Your task to perform on an android device: Go to sound settings Image 0: 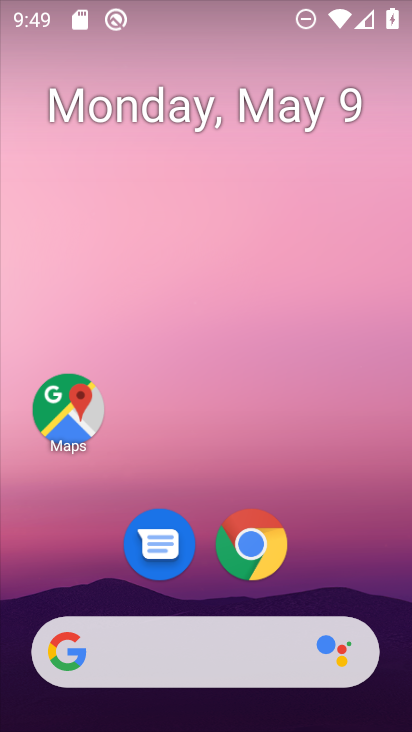
Step 0: drag from (335, 531) to (235, 96)
Your task to perform on an android device: Go to sound settings Image 1: 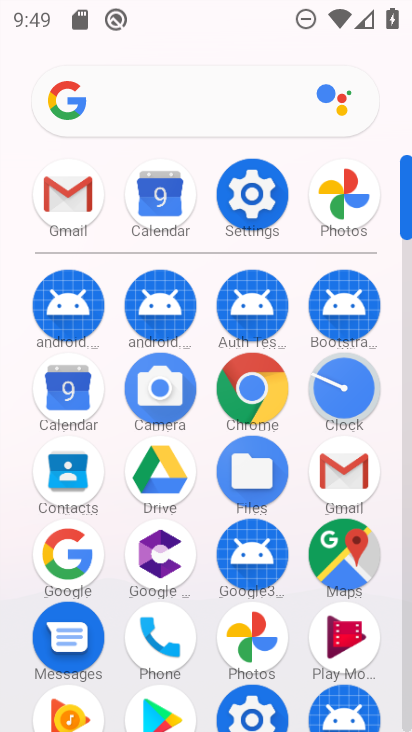
Step 1: click (251, 198)
Your task to perform on an android device: Go to sound settings Image 2: 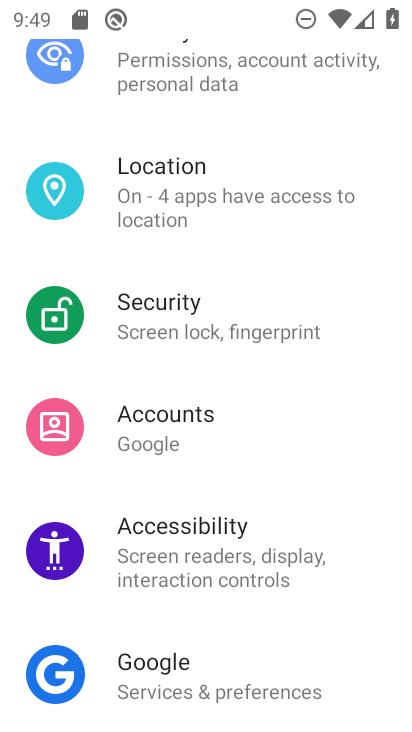
Step 2: drag from (237, 452) to (214, 224)
Your task to perform on an android device: Go to sound settings Image 3: 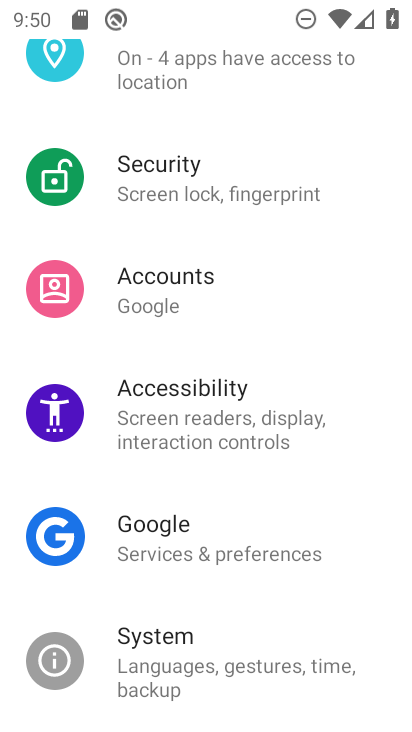
Step 3: drag from (239, 241) to (226, 714)
Your task to perform on an android device: Go to sound settings Image 4: 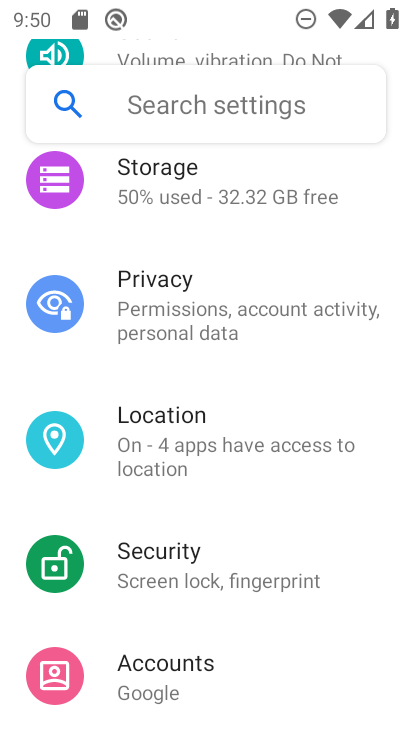
Step 4: drag from (187, 231) to (179, 664)
Your task to perform on an android device: Go to sound settings Image 5: 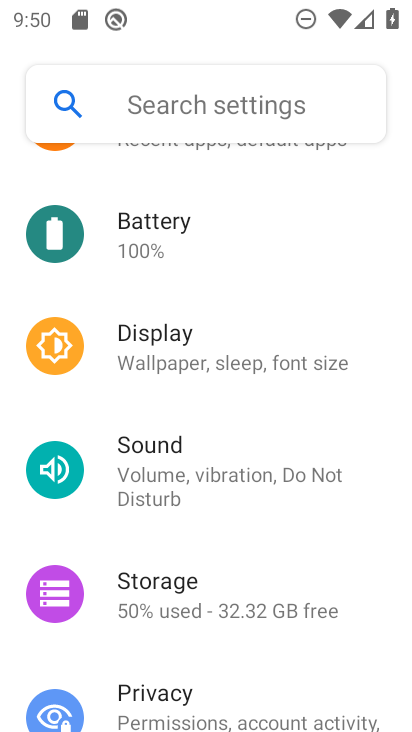
Step 5: click (155, 463)
Your task to perform on an android device: Go to sound settings Image 6: 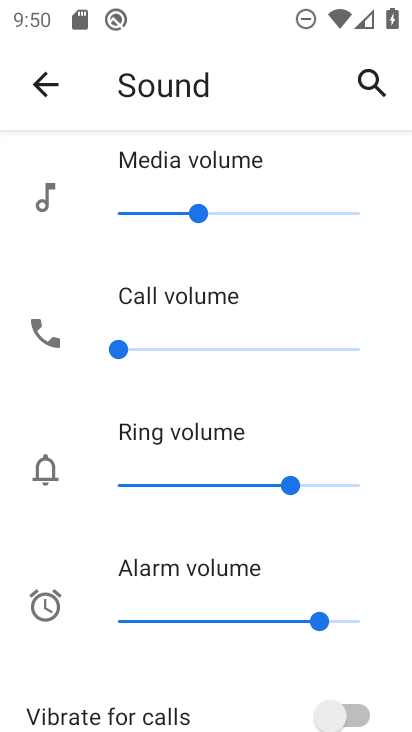
Step 6: task complete